Your task to perform on an android device: View the shopping cart on amazon.com. Add "jbl charge 4" to the cart on amazon.com Image 0: 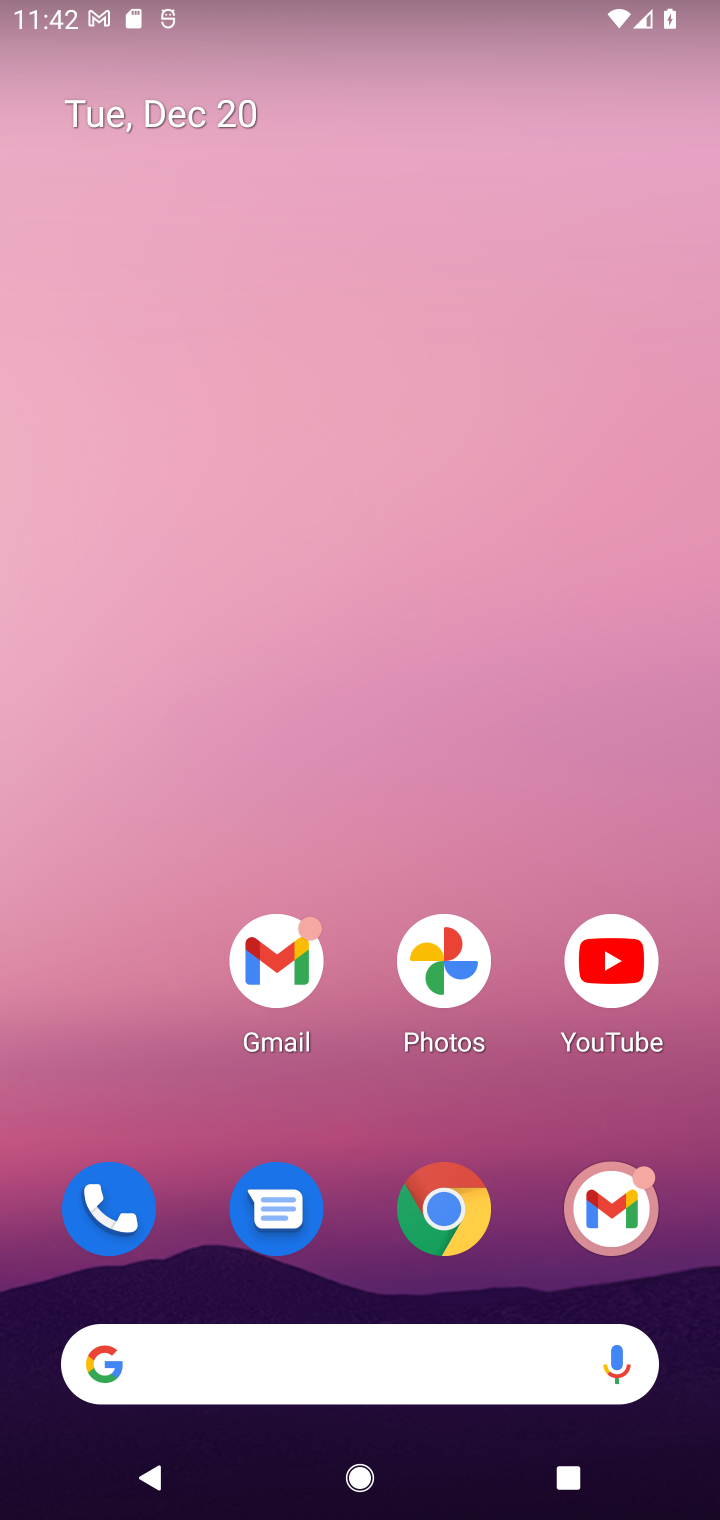
Step 0: click (441, 1213)
Your task to perform on an android device: View the shopping cart on amazon.com. Add "jbl charge 4" to the cart on amazon.com Image 1: 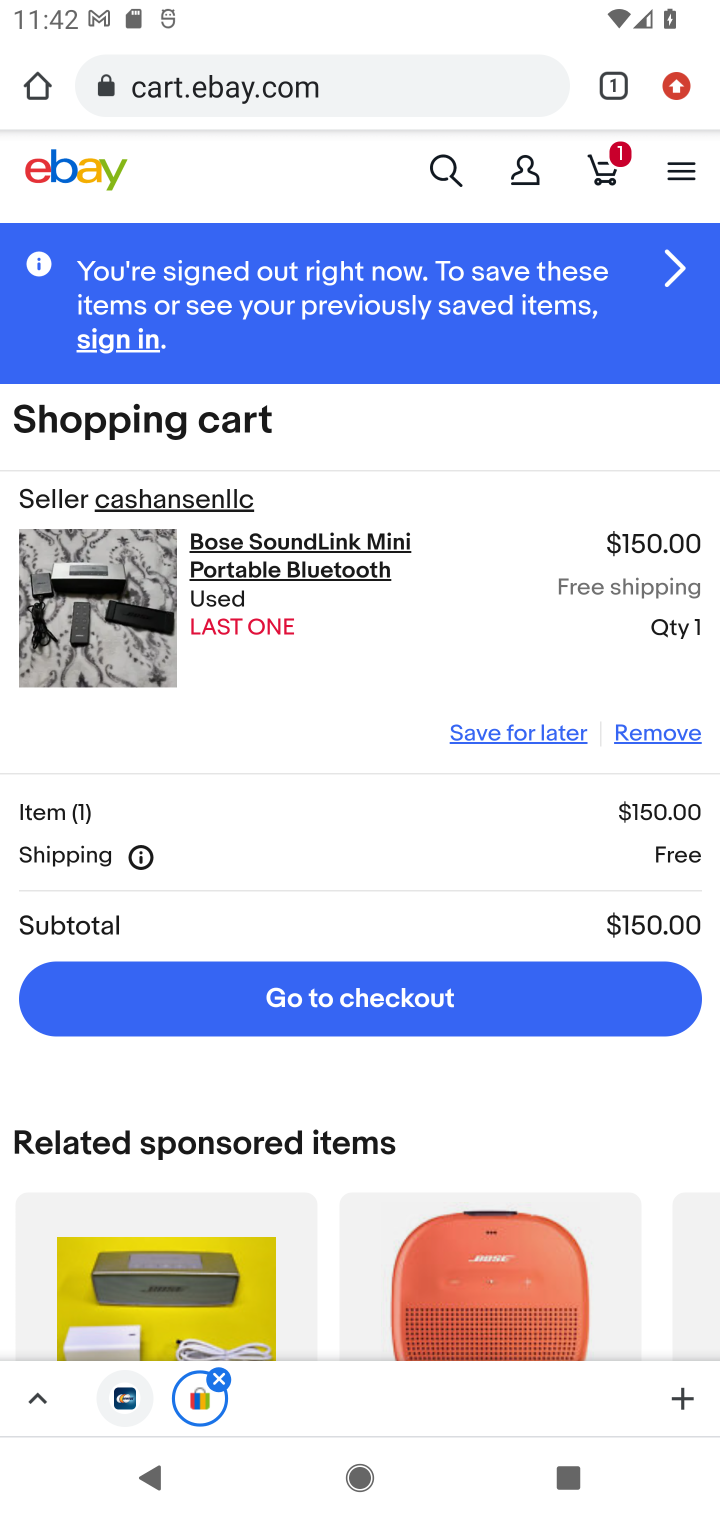
Step 1: click (234, 103)
Your task to perform on an android device: View the shopping cart on amazon.com. Add "jbl charge 4" to the cart on amazon.com Image 2: 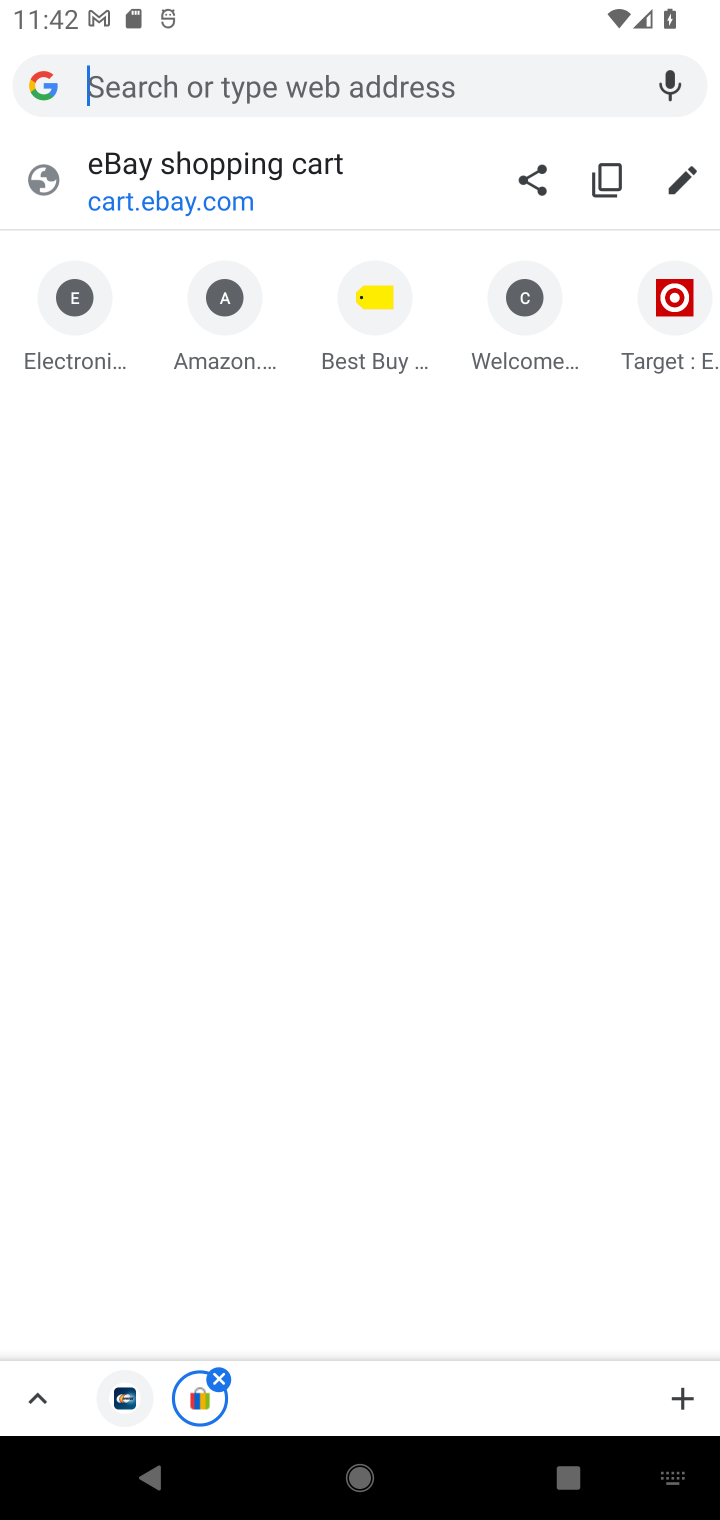
Step 2: click (222, 358)
Your task to perform on an android device: View the shopping cart on amazon.com. Add "jbl charge 4" to the cart on amazon.com Image 3: 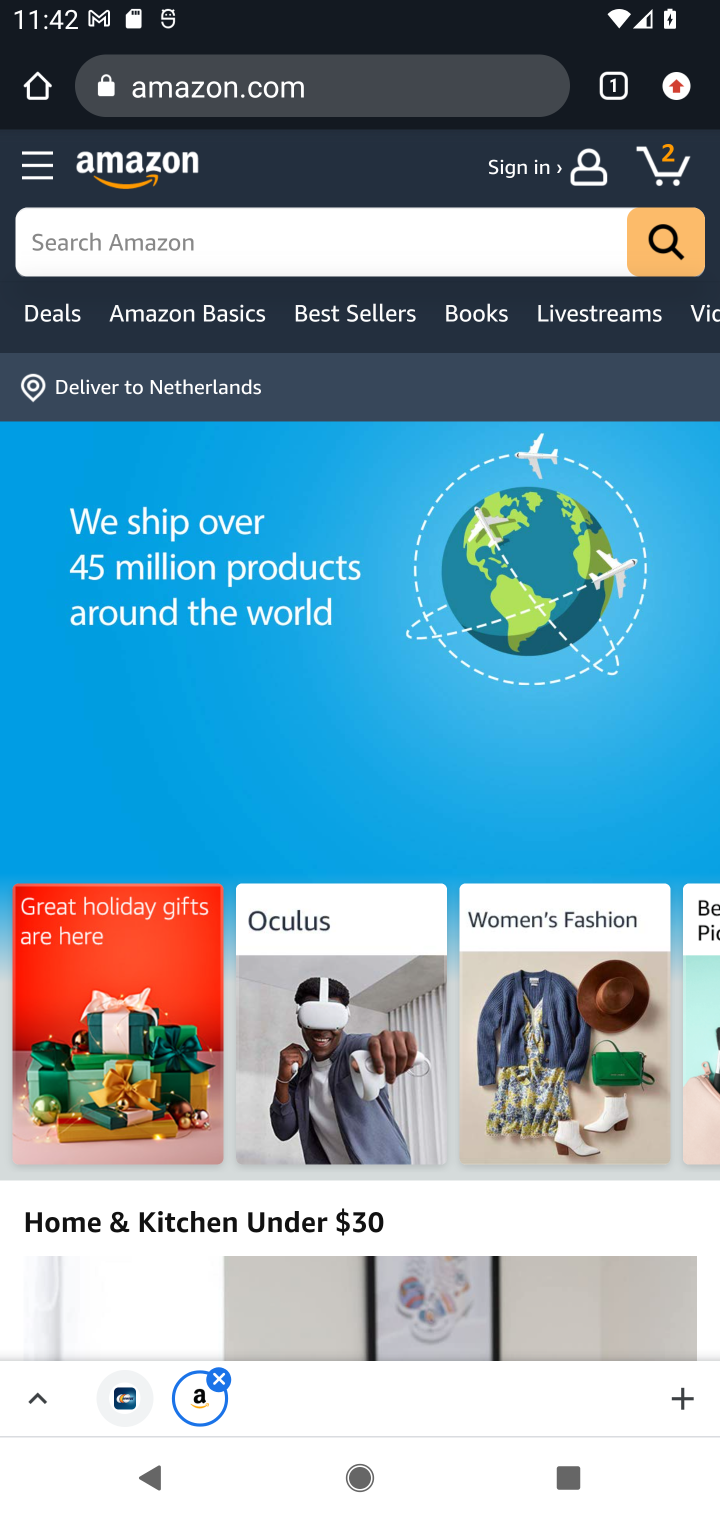
Step 3: click (657, 166)
Your task to perform on an android device: View the shopping cart on amazon.com. Add "jbl charge 4" to the cart on amazon.com Image 4: 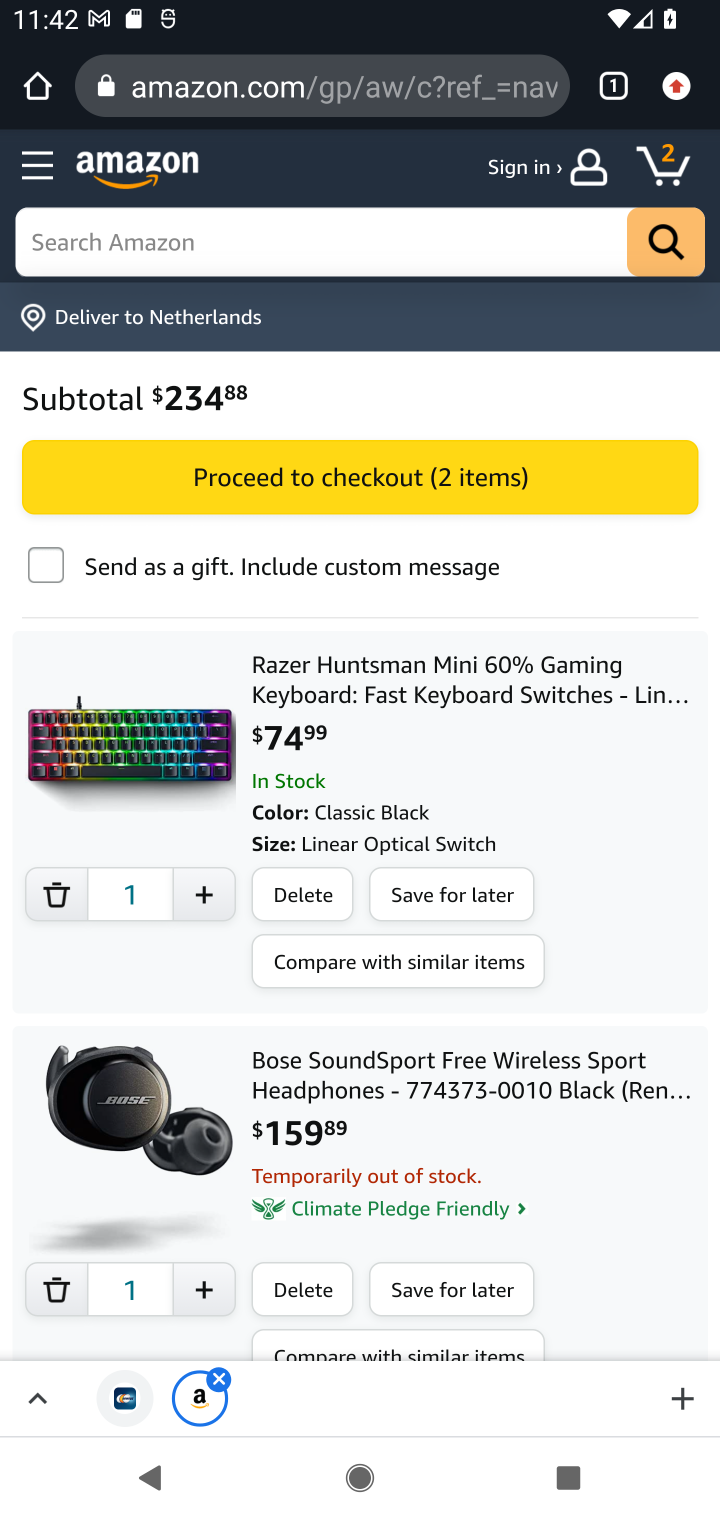
Step 4: click (95, 243)
Your task to perform on an android device: View the shopping cart on amazon.com. Add "jbl charge 4" to the cart on amazon.com Image 5: 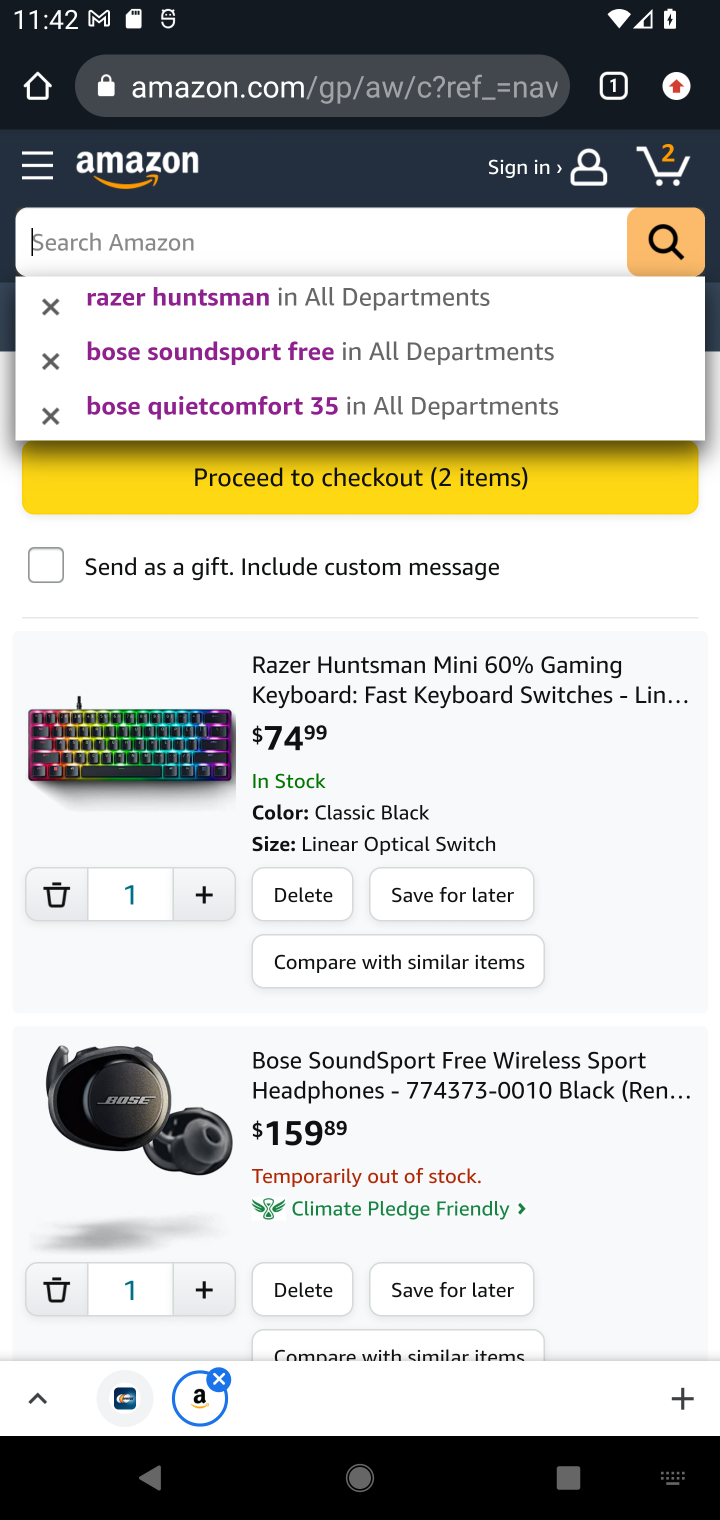
Step 5: type "jbl charge 4"
Your task to perform on an android device: View the shopping cart on amazon.com. Add "jbl charge 4" to the cart on amazon.com Image 6: 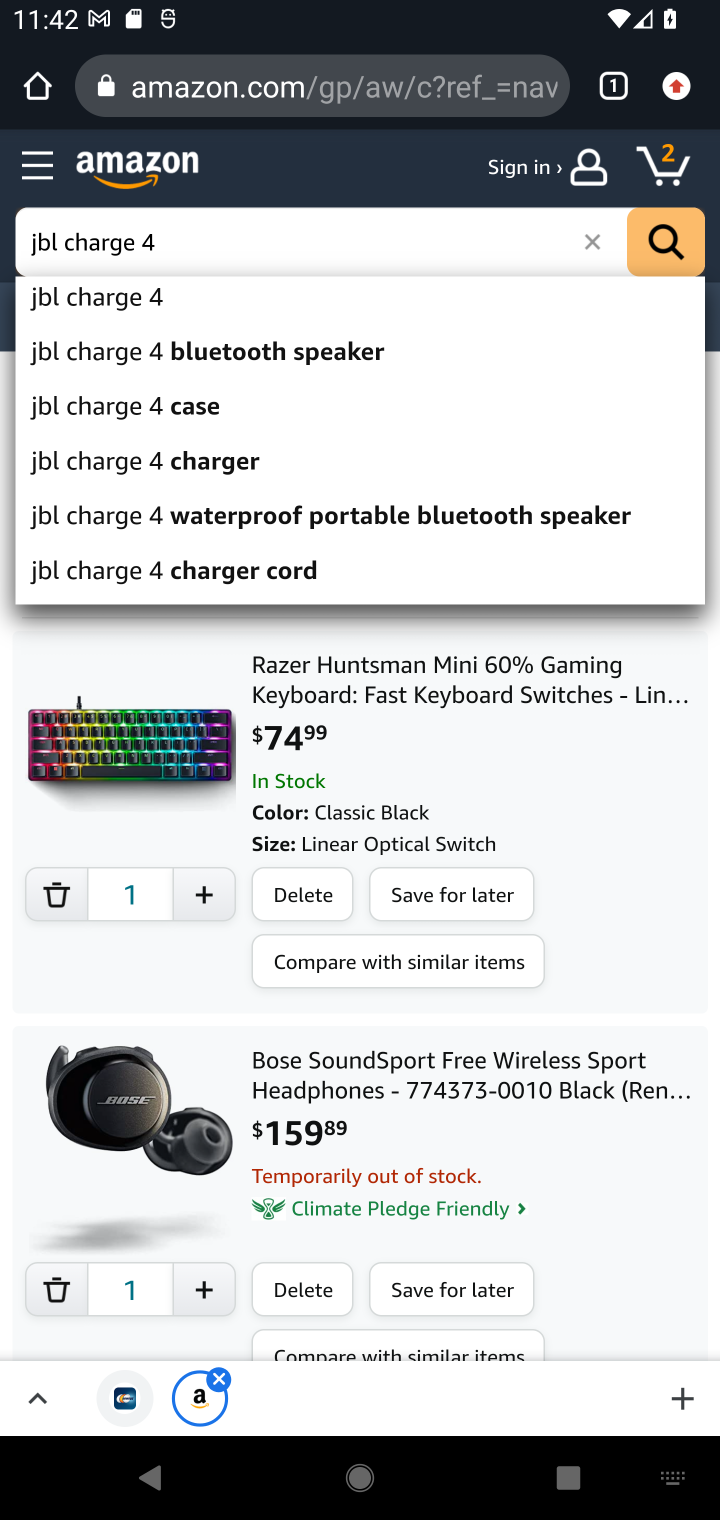
Step 6: click (94, 304)
Your task to perform on an android device: View the shopping cart on amazon.com. Add "jbl charge 4" to the cart on amazon.com Image 7: 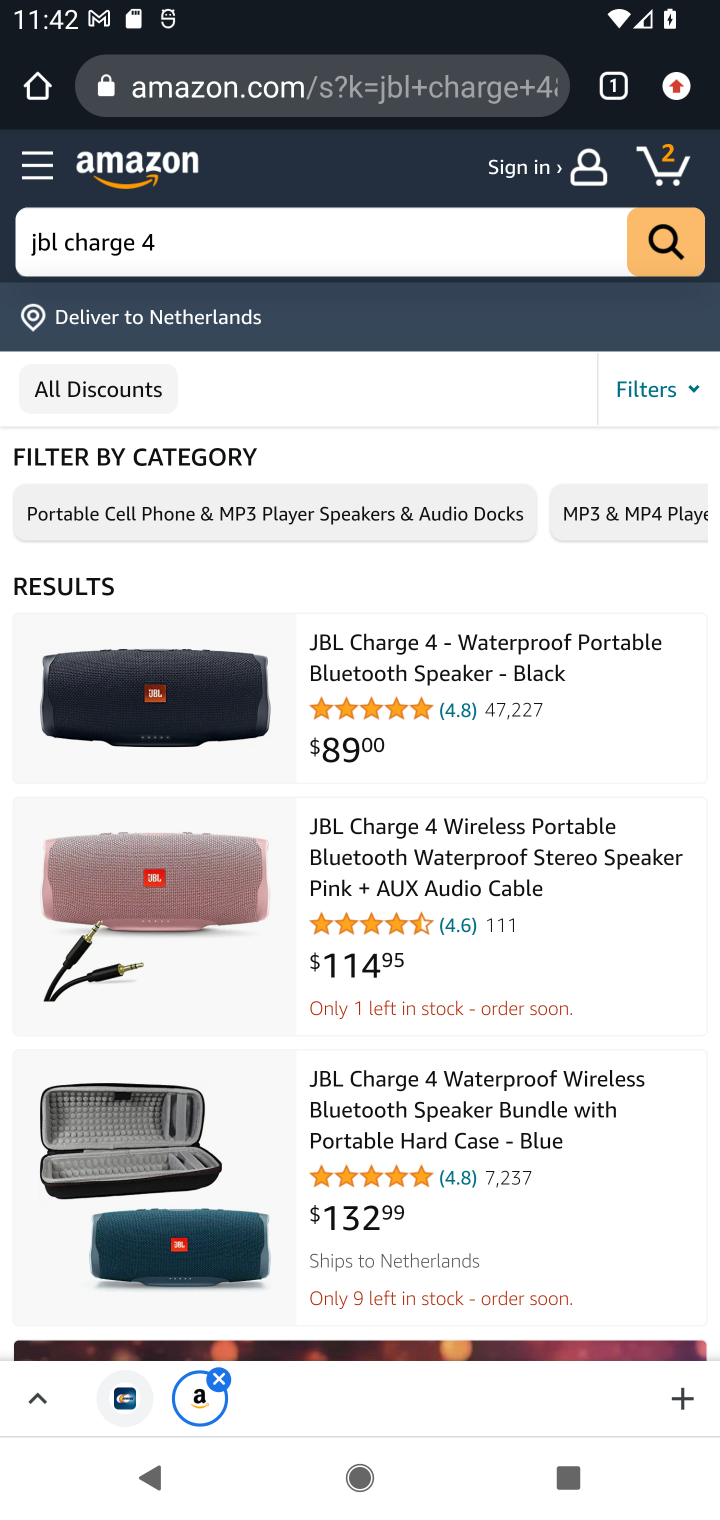
Step 7: drag from (418, 947) to (418, 774)
Your task to perform on an android device: View the shopping cart on amazon.com. Add "jbl charge 4" to the cart on amazon.com Image 8: 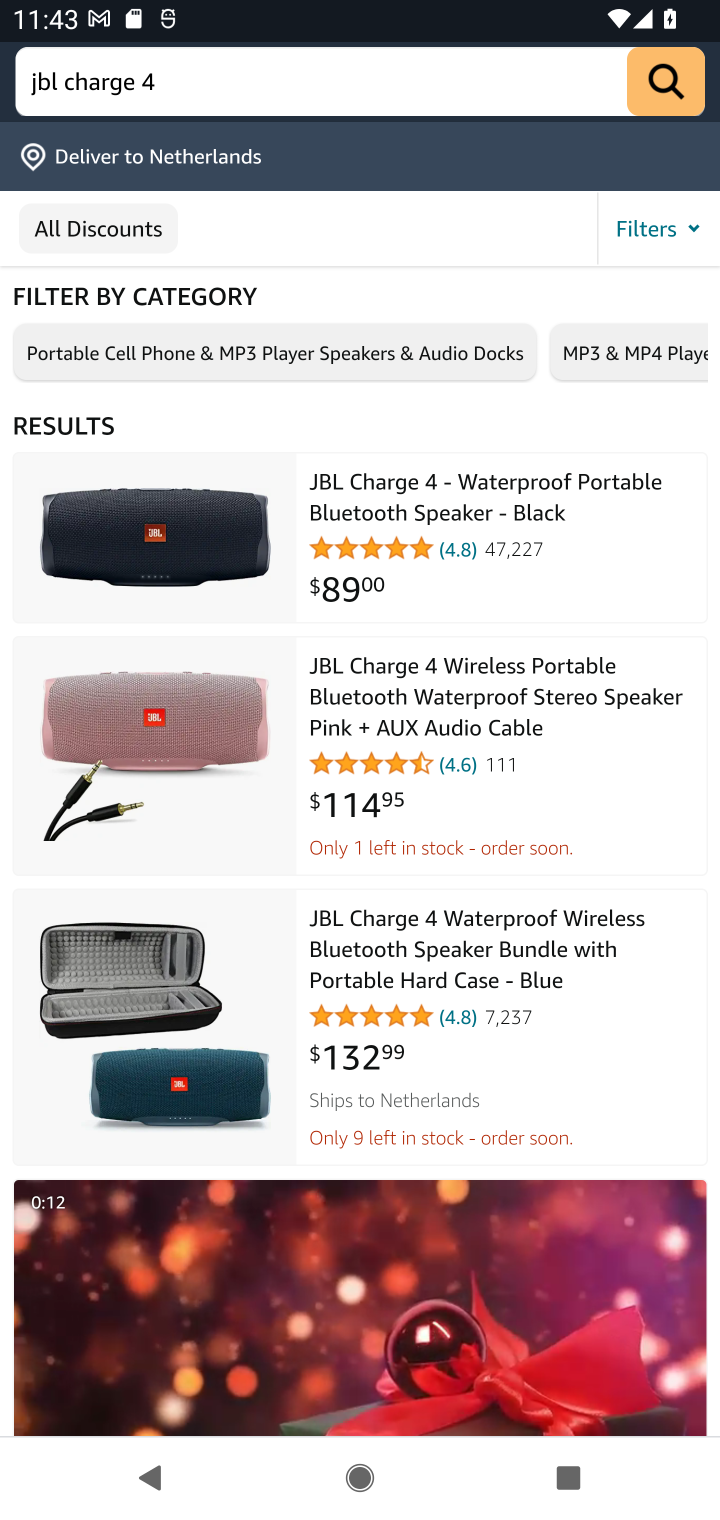
Step 8: click (374, 968)
Your task to perform on an android device: View the shopping cart on amazon.com. Add "jbl charge 4" to the cart on amazon.com Image 9: 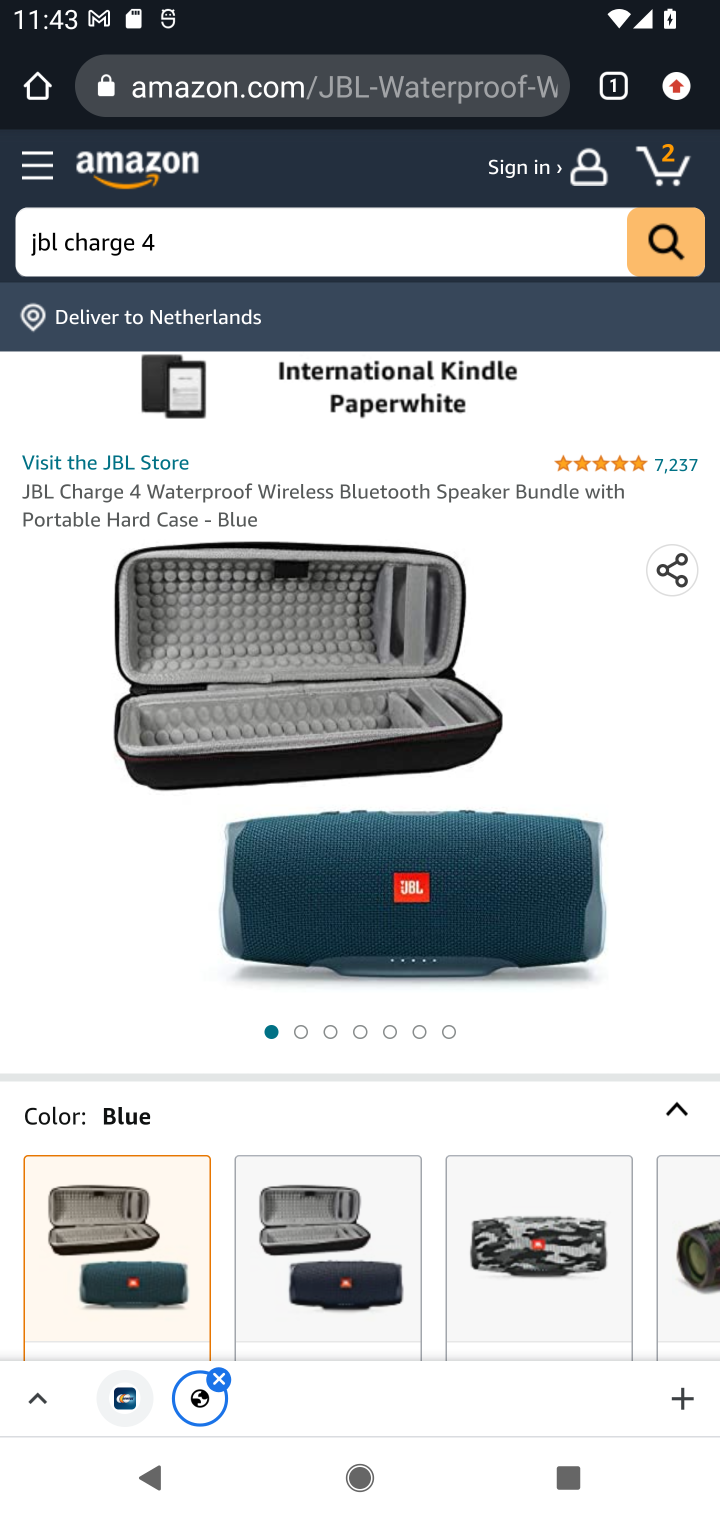
Step 9: drag from (348, 1016) to (344, 478)
Your task to perform on an android device: View the shopping cart on amazon.com. Add "jbl charge 4" to the cart on amazon.com Image 10: 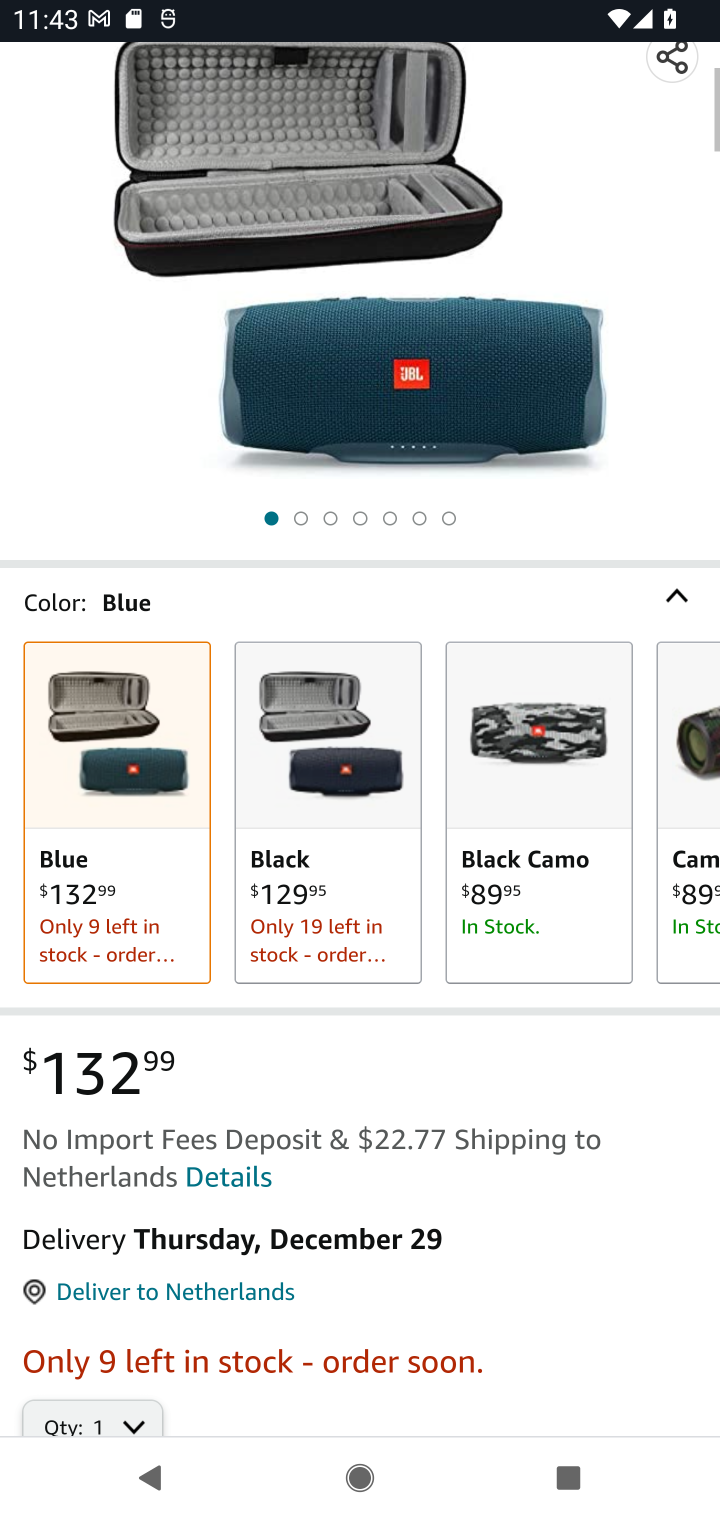
Step 10: drag from (389, 1069) to (368, 444)
Your task to perform on an android device: View the shopping cart on amazon.com. Add "jbl charge 4" to the cart on amazon.com Image 11: 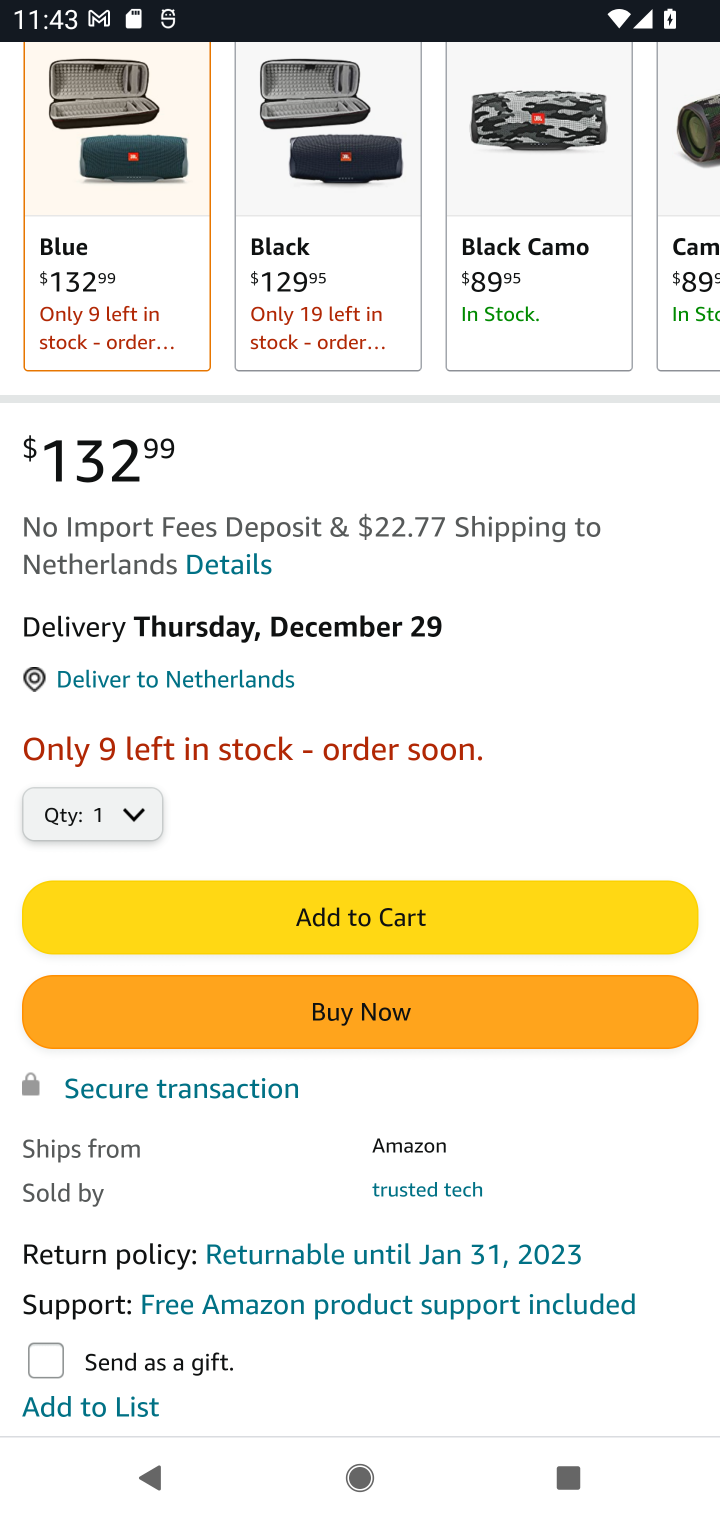
Step 11: click (325, 923)
Your task to perform on an android device: View the shopping cart on amazon.com. Add "jbl charge 4" to the cart on amazon.com Image 12: 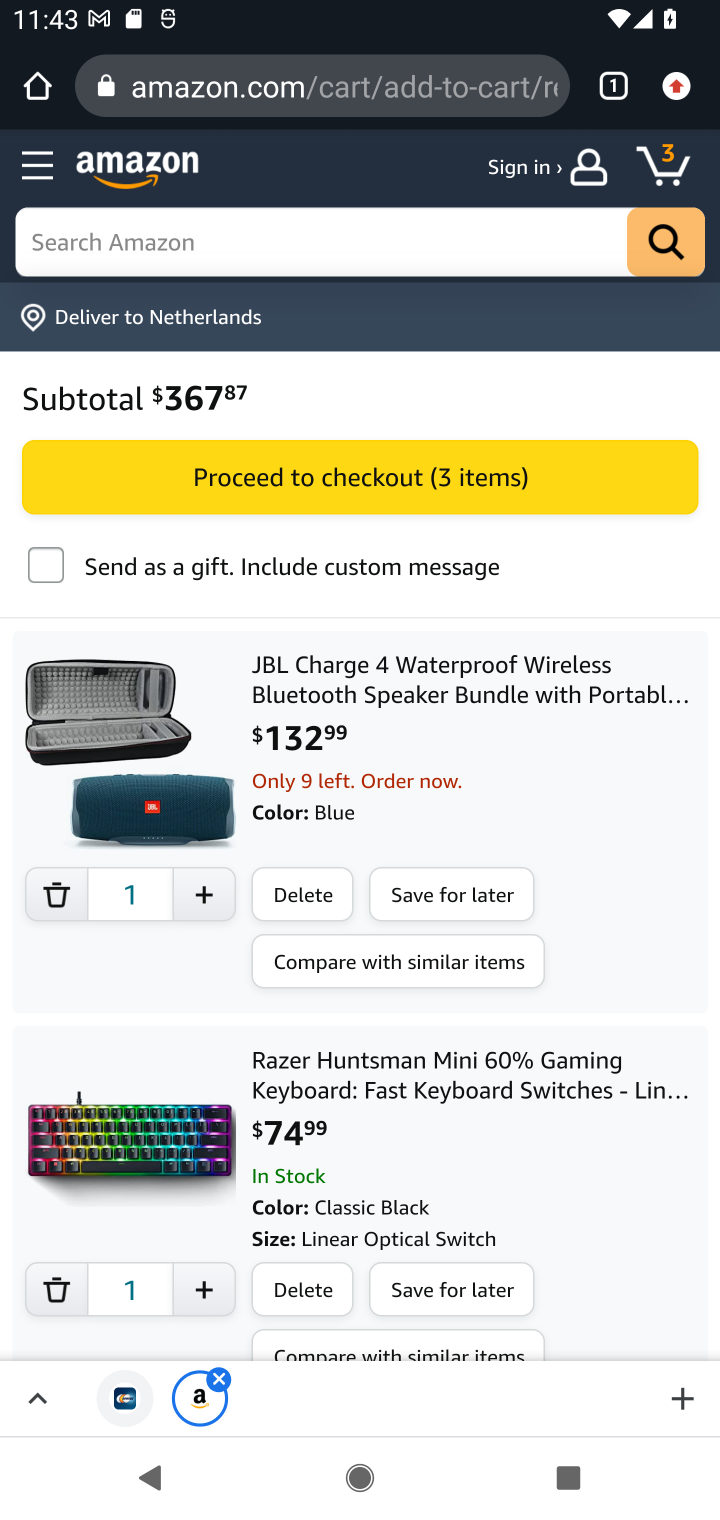
Step 12: task complete